Your task to perform on an android device: Open calendar and show me the first week of next month Image 0: 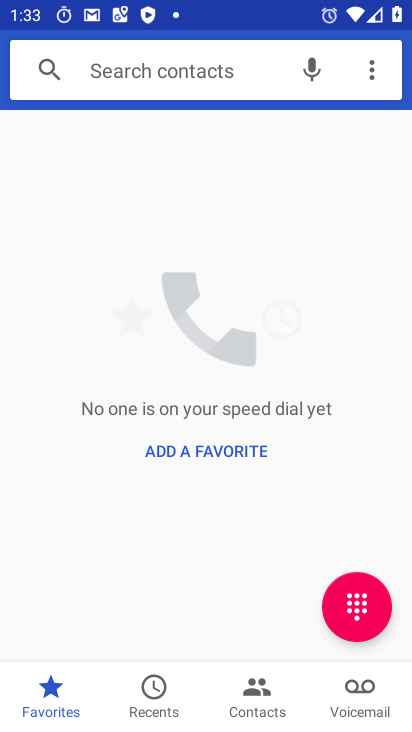
Step 0: press home button
Your task to perform on an android device: Open calendar and show me the first week of next month Image 1: 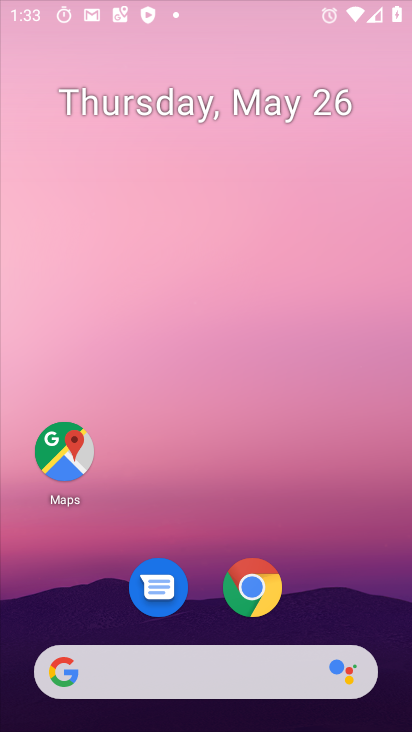
Step 1: drag from (241, 630) to (308, 174)
Your task to perform on an android device: Open calendar and show me the first week of next month Image 2: 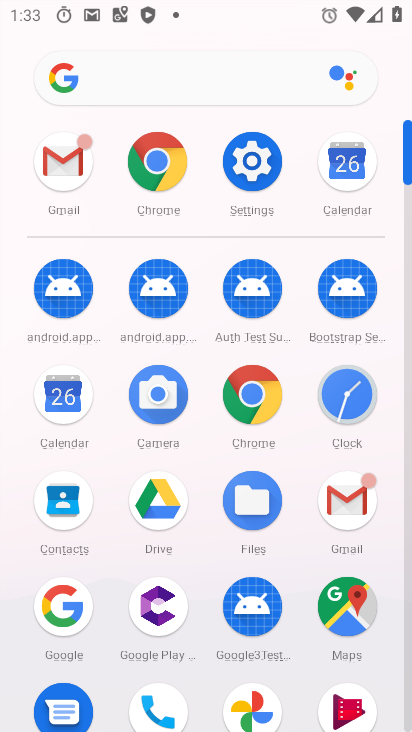
Step 2: click (50, 397)
Your task to perform on an android device: Open calendar and show me the first week of next month Image 3: 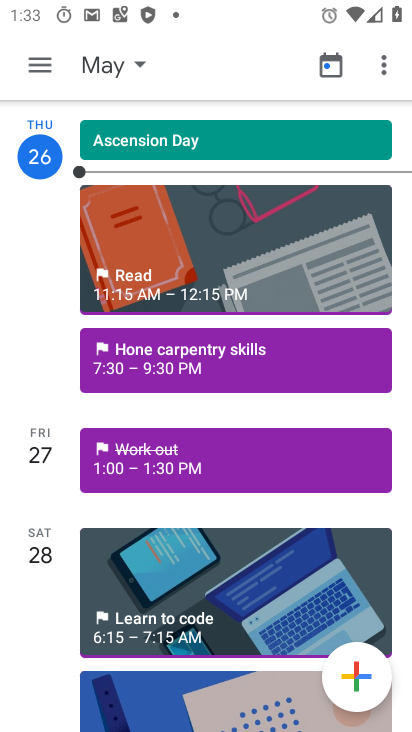
Step 3: click (43, 79)
Your task to perform on an android device: Open calendar and show me the first week of next month Image 4: 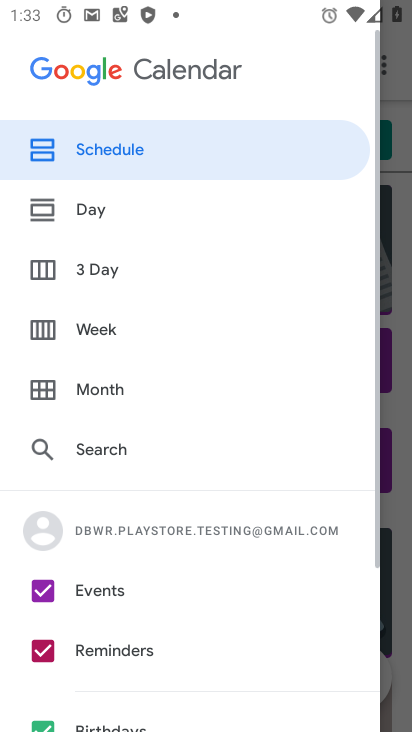
Step 4: click (107, 390)
Your task to perform on an android device: Open calendar and show me the first week of next month Image 5: 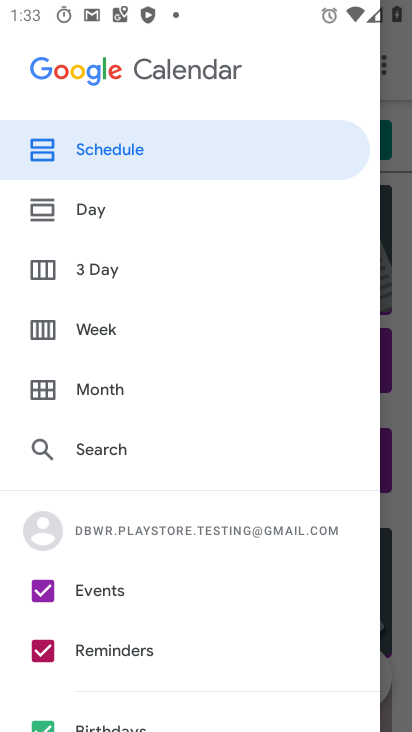
Step 5: click (121, 383)
Your task to perform on an android device: Open calendar and show me the first week of next month Image 6: 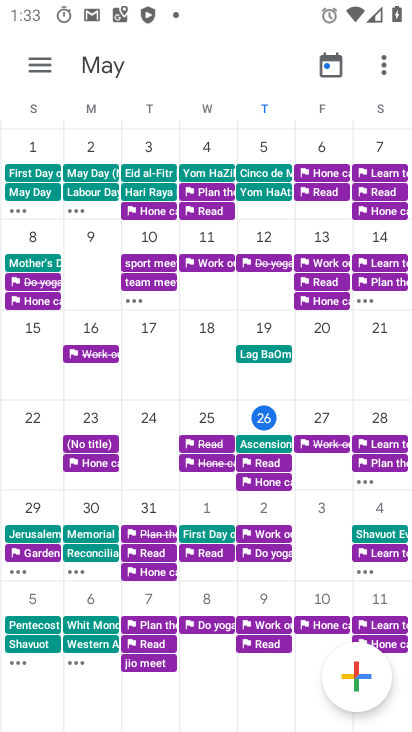
Step 6: drag from (366, 408) to (17, 384)
Your task to perform on an android device: Open calendar and show me the first week of next month Image 7: 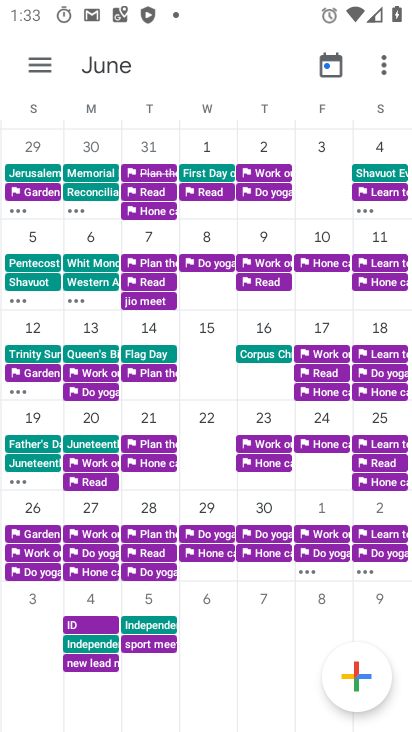
Step 7: click (203, 171)
Your task to perform on an android device: Open calendar and show me the first week of next month Image 8: 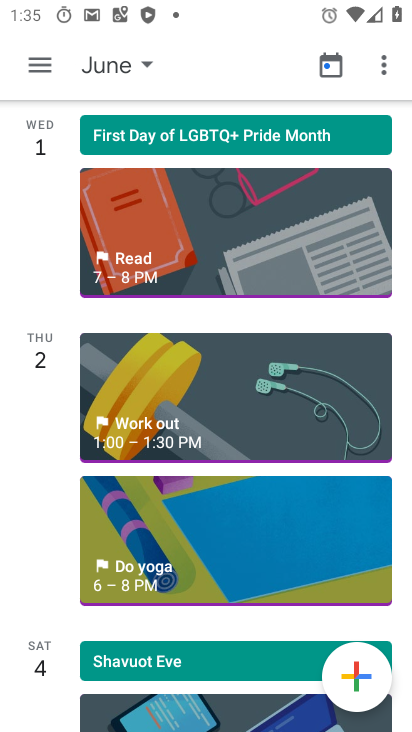
Step 8: task complete